Your task to perform on an android device: clear all cookies in the chrome app Image 0: 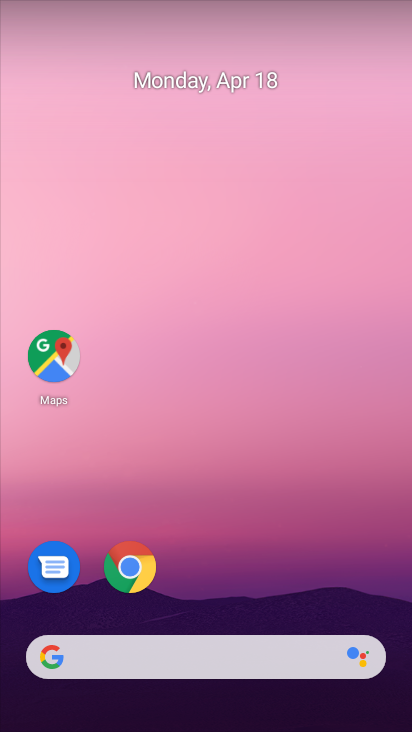
Step 0: drag from (185, 475) to (188, 104)
Your task to perform on an android device: clear all cookies in the chrome app Image 1: 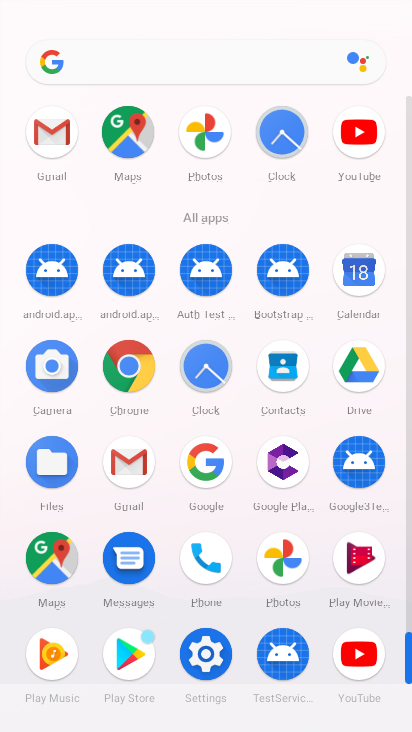
Step 1: click (110, 372)
Your task to perform on an android device: clear all cookies in the chrome app Image 2: 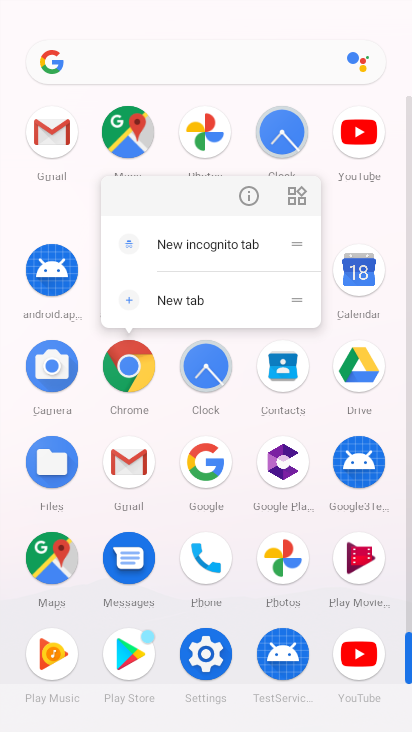
Step 2: click (373, 204)
Your task to perform on an android device: clear all cookies in the chrome app Image 3: 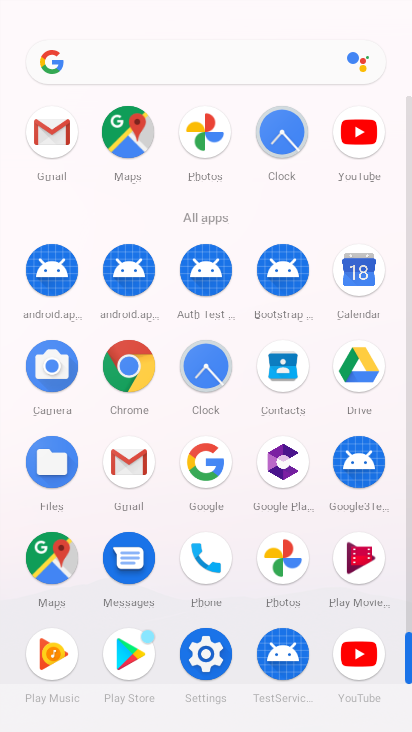
Step 3: click (119, 362)
Your task to perform on an android device: clear all cookies in the chrome app Image 4: 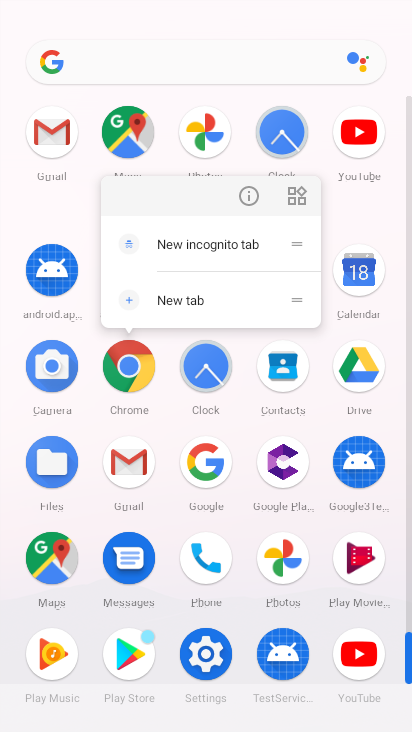
Step 4: click (119, 362)
Your task to perform on an android device: clear all cookies in the chrome app Image 5: 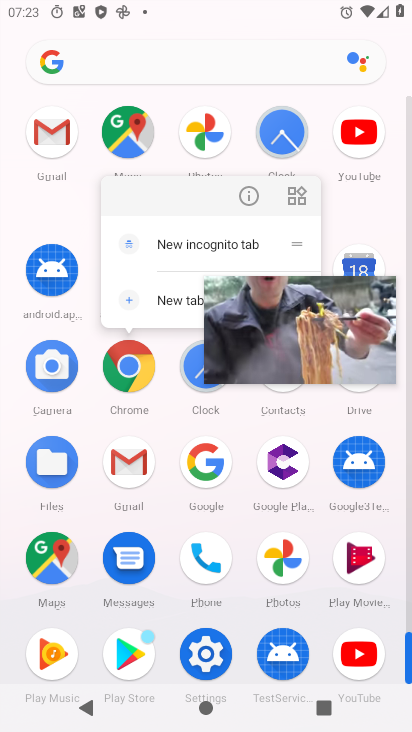
Step 5: click (123, 349)
Your task to perform on an android device: clear all cookies in the chrome app Image 6: 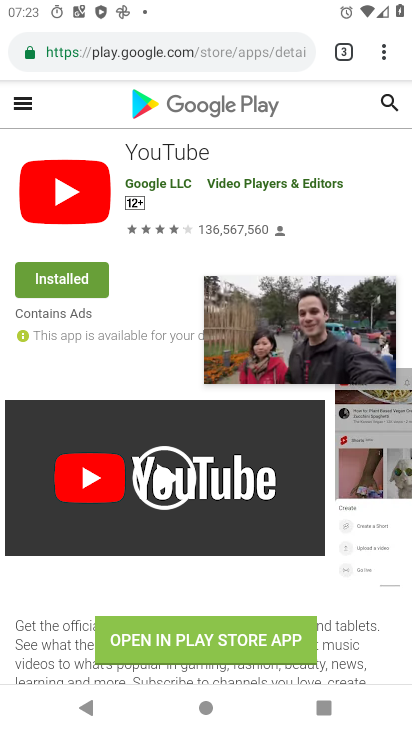
Step 6: drag from (304, 322) to (171, 644)
Your task to perform on an android device: clear all cookies in the chrome app Image 7: 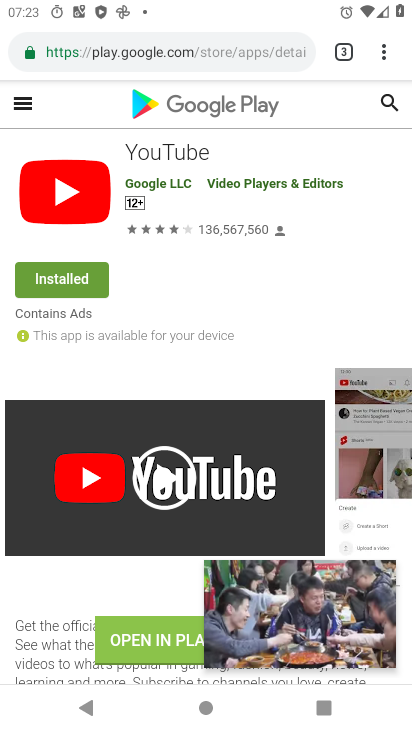
Step 7: click (332, 599)
Your task to perform on an android device: clear all cookies in the chrome app Image 8: 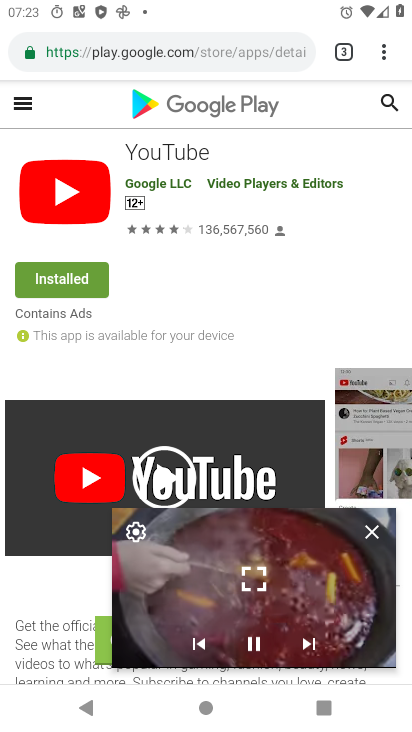
Step 8: click (365, 538)
Your task to perform on an android device: clear all cookies in the chrome app Image 9: 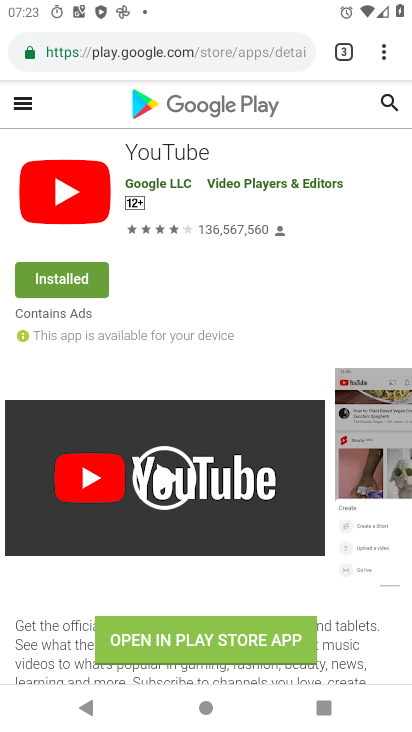
Step 9: drag from (388, 53) to (259, 616)
Your task to perform on an android device: clear all cookies in the chrome app Image 10: 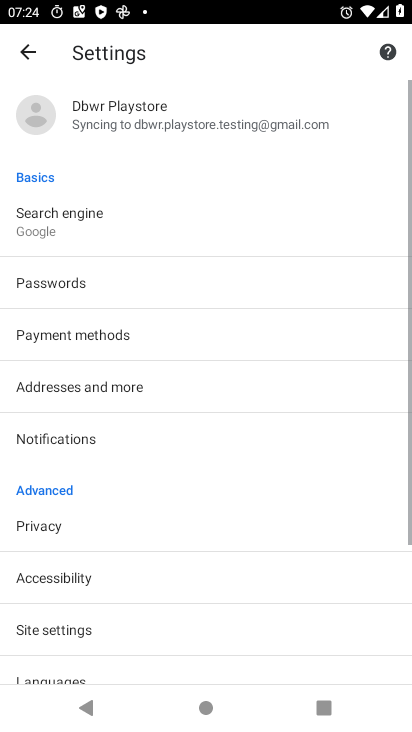
Step 10: drag from (253, 587) to (214, 271)
Your task to perform on an android device: clear all cookies in the chrome app Image 11: 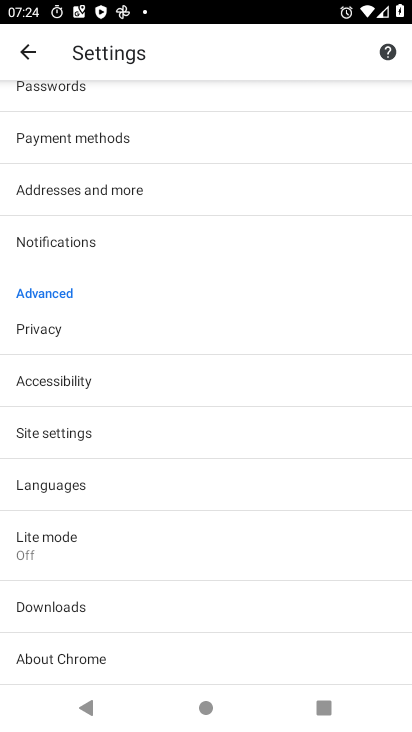
Step 11: click (92, 334)
Your task to perform on an android device: clear all cookies in the chrome app Image 12: 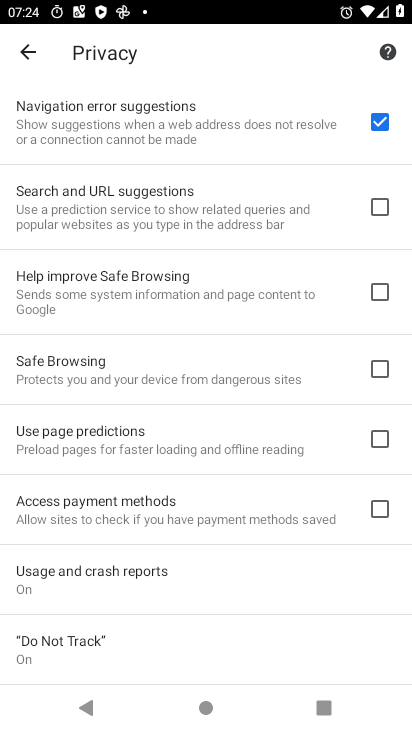
Step 12: drag from (221, 621) to (173, 321)
Your task to perform on an android device: clear all cookies in the chrome app Image 13: 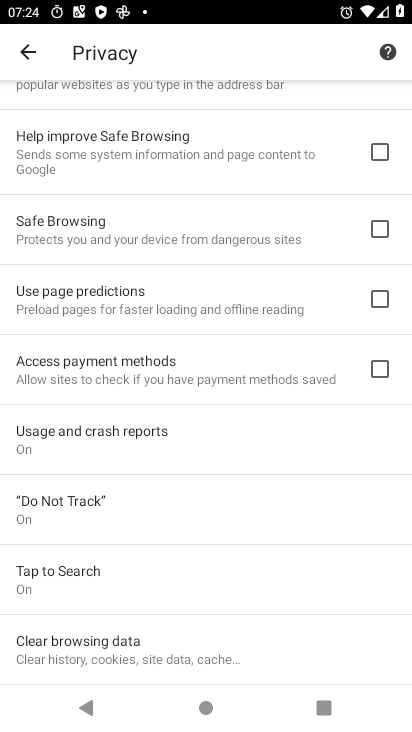
Step 13: click (40, 656)
Your task to perform on an android device: clear all cookies in the chrome app Image 14: 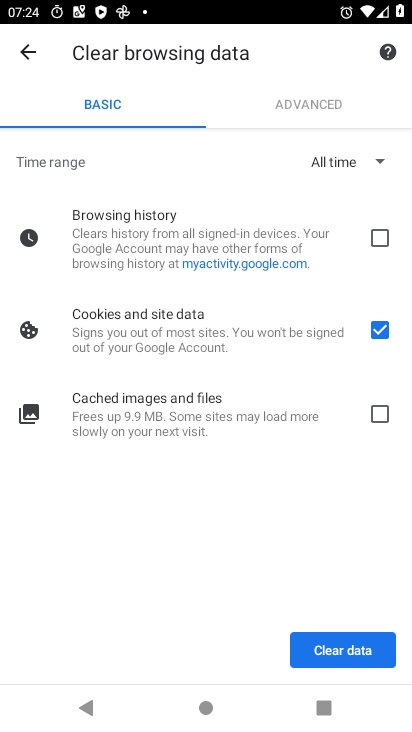
Step 14: click (360, 651)
Your task to perform on an android device: clear all cookies in the chrome app Image 15: 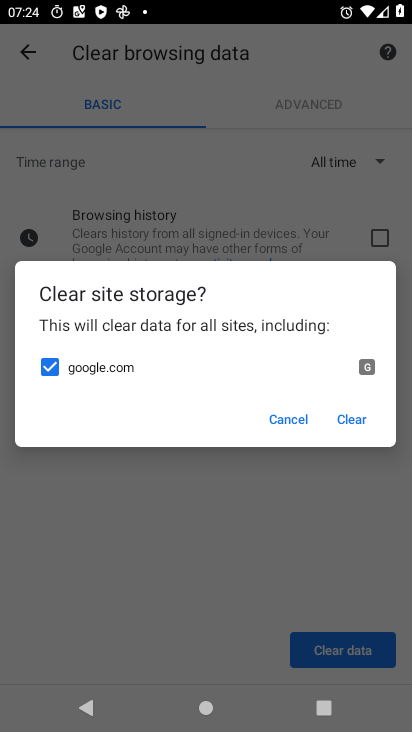
Step 15: click (354, 409)
Your task to perform on an android device: clear all cookies in the chrome app Image 16: 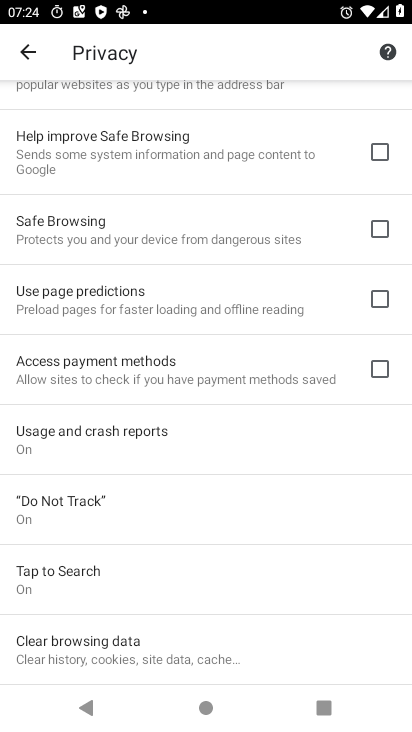
Step 16: task complete